Your task to perform on an android device: check android version Image 0: 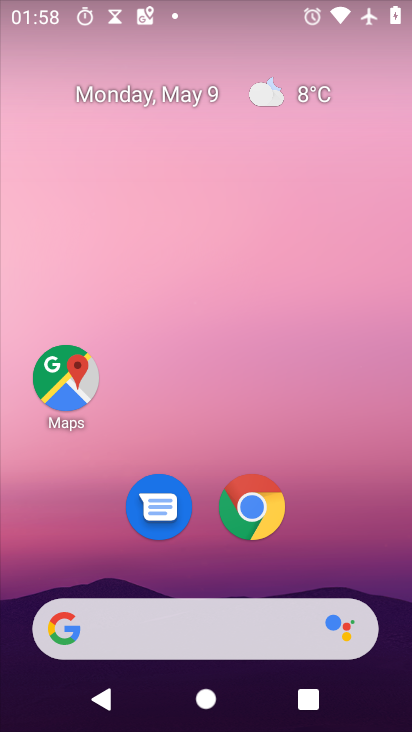
Step 0: drag from (229, 726) to (229, 161)
Your task to perform on an android device: check android version Image 1: 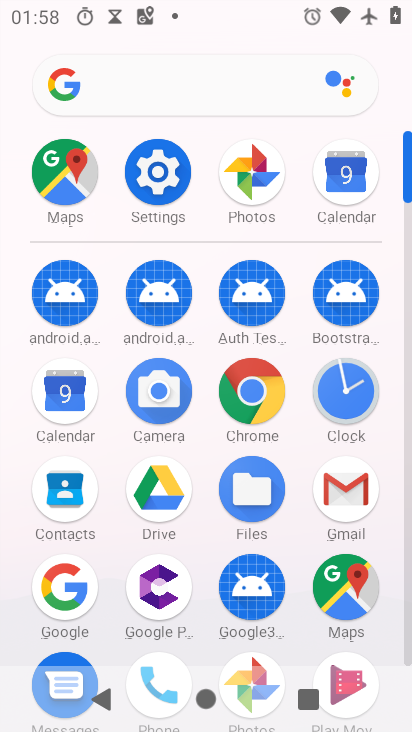
Step 1: click (158, 168)
Your task to perform on an android device: check android version Image 2: 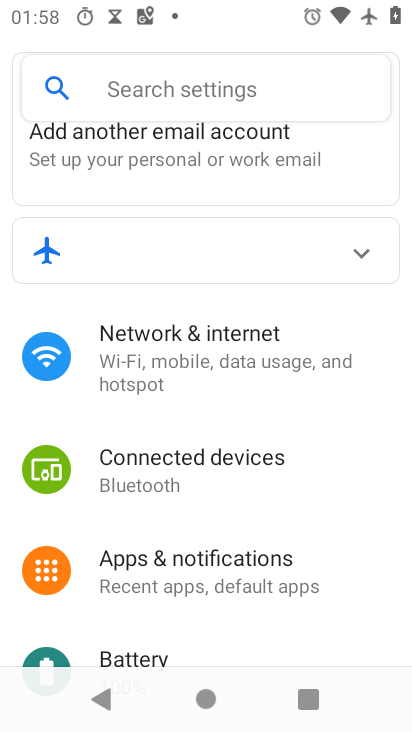
Step 2: drag from (216, 639) to (202, 298)
Your task to perform on an android device: check android version Image 3: 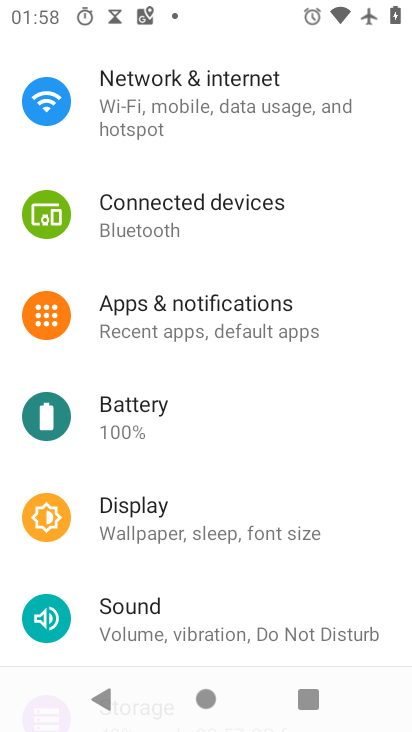
Step 3: drag from (213, 615) to (214, 249)
Your task to perform on an android device: check android version Image 4: 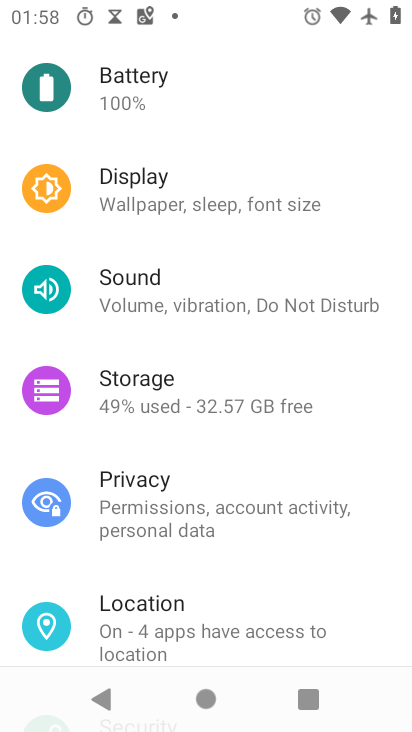
Step 4: drag from (208, 631) to (203, 222)
Your task to perform on an android device: check android version Image 5: 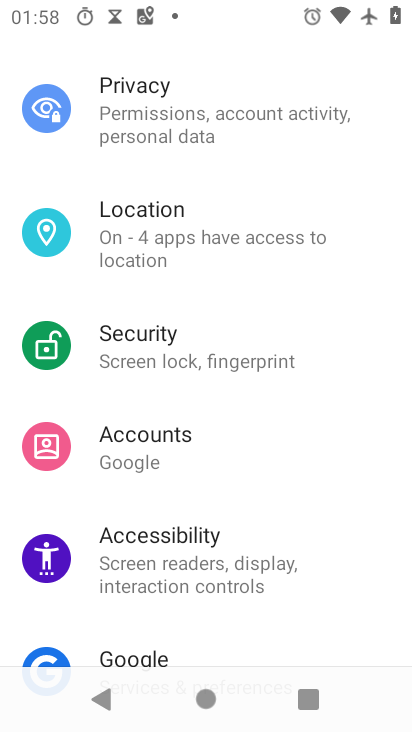
Step 5: drag from (171, 649) to (170, 196)
Your task to perform on an android device: check android version Image 6: 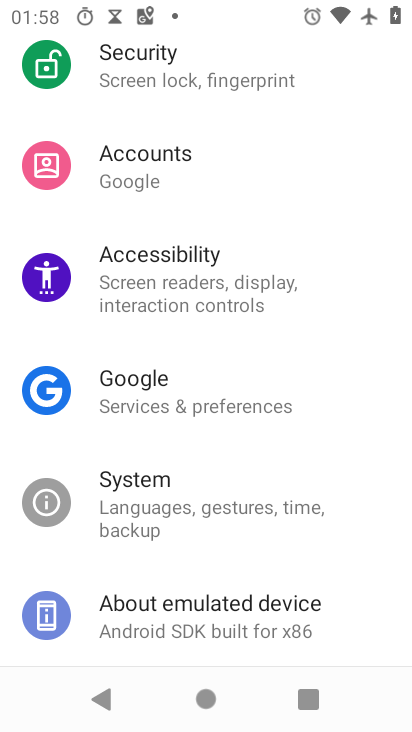
Step 6: click (134, 604)
Your task to perform on an android device: check android version Image 7: 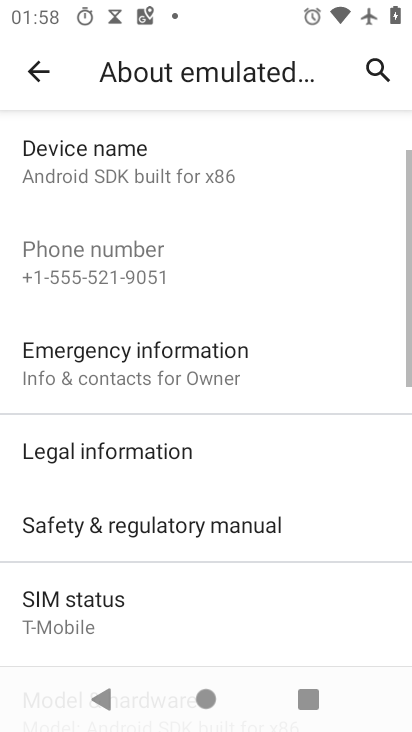
Step 7: drag from (190, 649) to (188, 144)
Your task to perform on an android device: check android version Image 8: 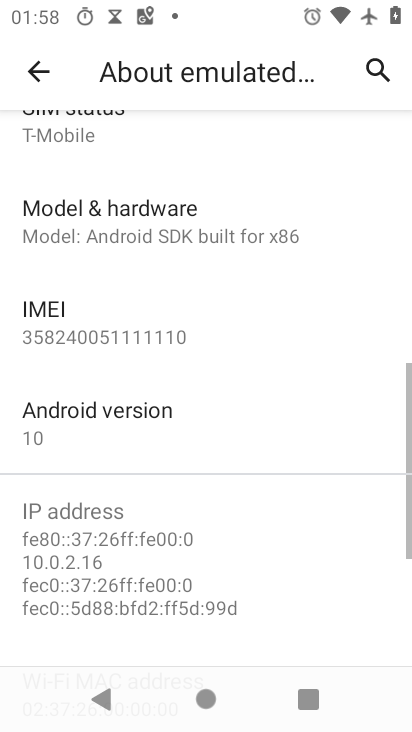
Step 8: click (97, 417)
Your task to perform on an android device: check android version Image 9: 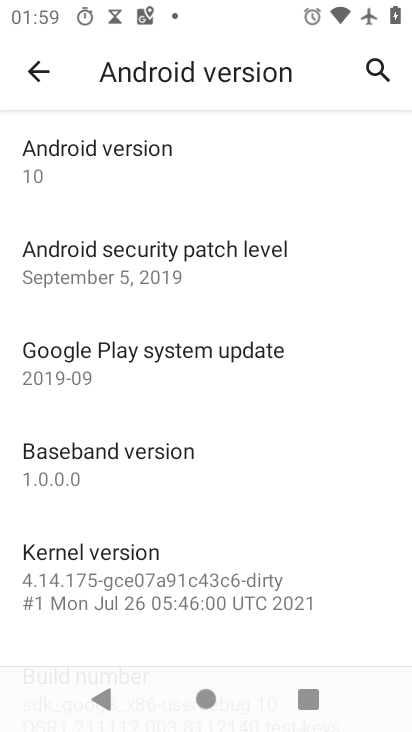
Step 9: task complete